Your task to perform on an android device: turn off location Image 0: 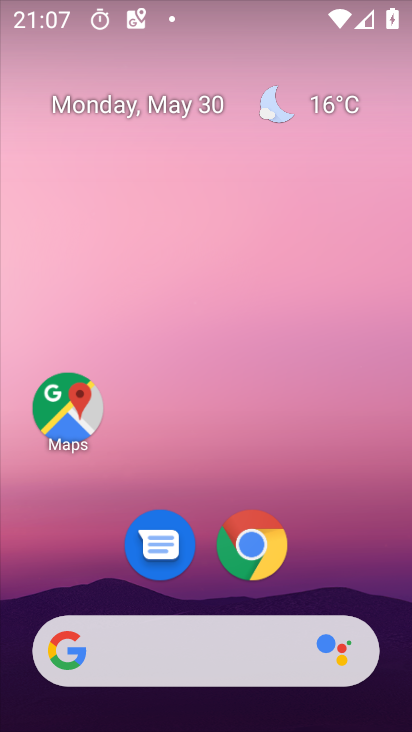
Step 0: drag from (329, 575) to (337, 113)
Your task to perform on an android device: turn off location Image 1: 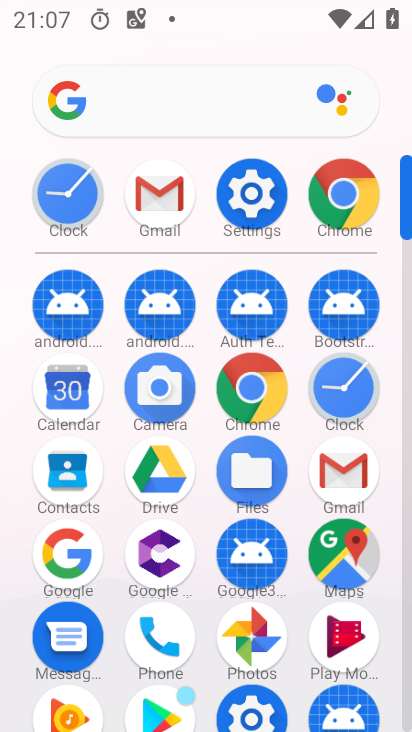
Step 1: click (254, 204)
Your task to perform on an android device: turn off location Image 2: 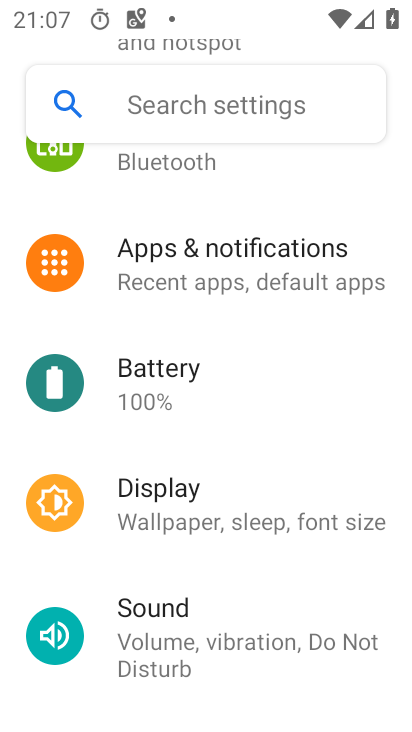
Step 2: drag from (268, 570) to (282, 318)
Your task to perform on an android device: turn off location Image 3: 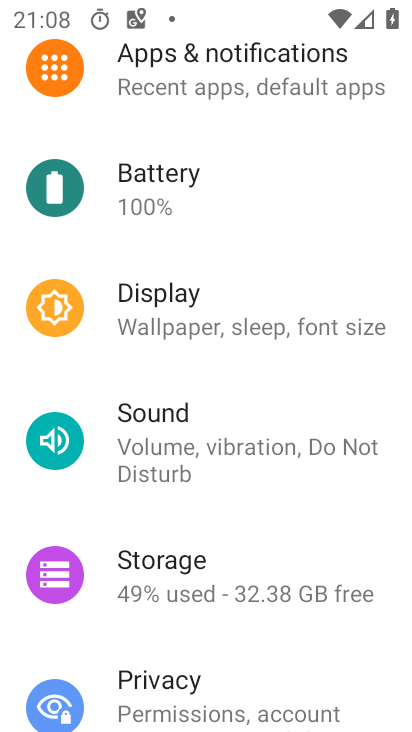
Step 3: drag from (247, 647) to (238, 340)
Your task to perform on an android device: turn off location Image 4: 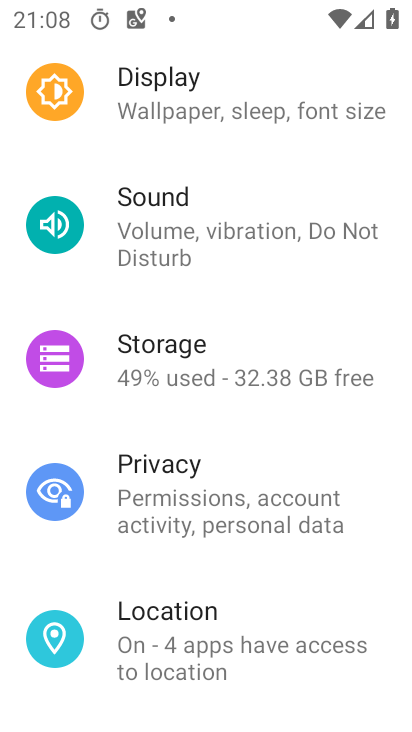
Step 4: click (193, 648)
Your task to perform on an android device: turn off location Image 5: 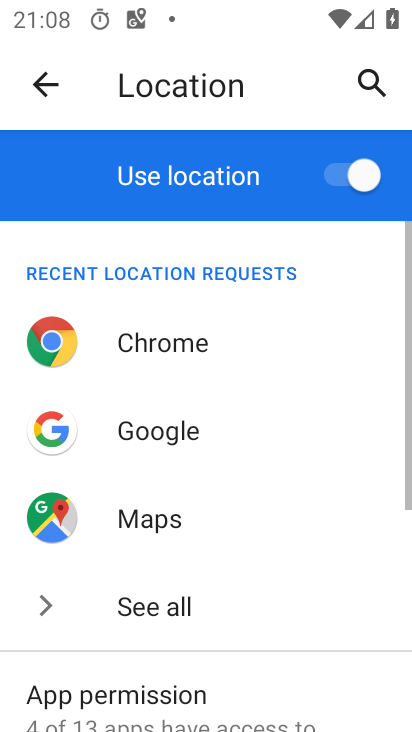
Step 5: drag from (271, 668) to (255, 403)
Your task to perform on an android device: turn off location Image 6: 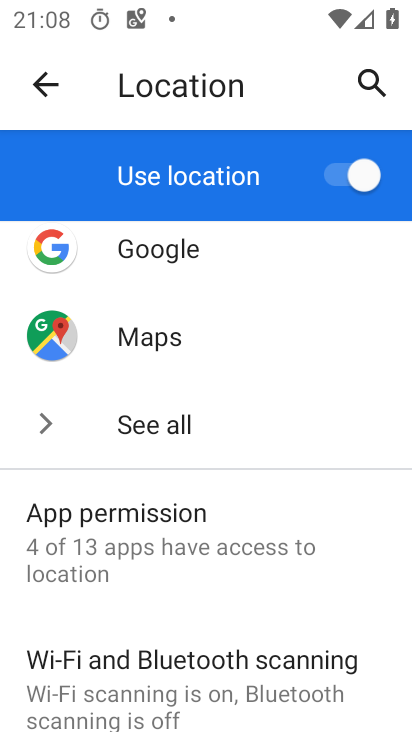
Step 6: drag from (235, 602) to (245, 256)
Your task to perform on an android device: turn off location Image 7: 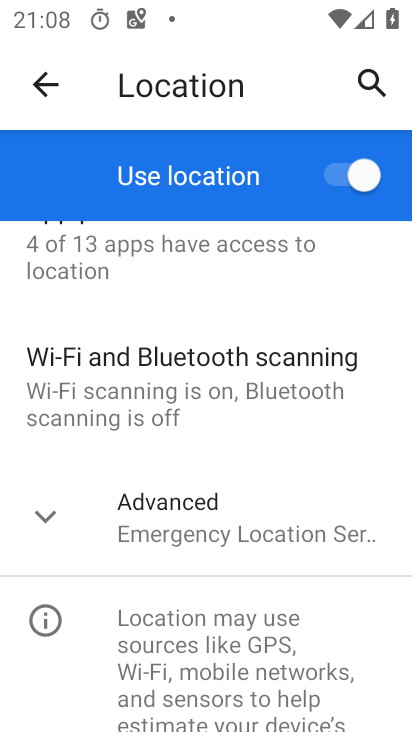
Step 7: click (343, 174)
Your task to perform on an android device: turn off location Image 8: 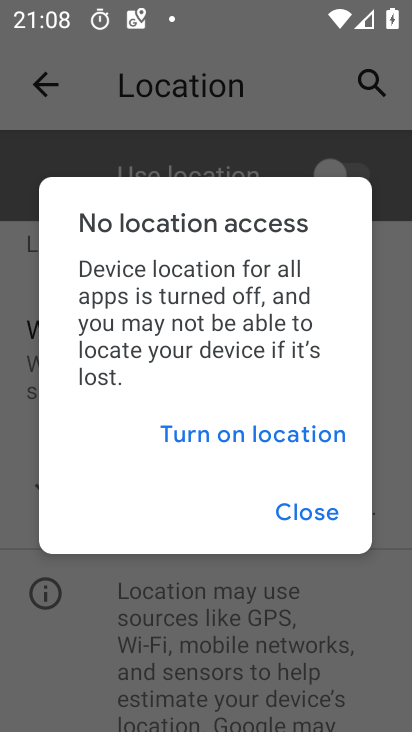
Step 8: click (295, 509)
Your task to perform on an android device: turn off location Image 9: 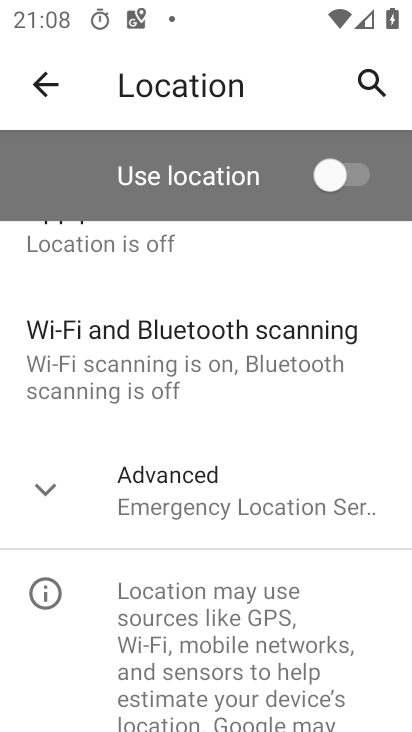
Step 9: task complete